Your task to perform on an android device: Open the map Image 0: 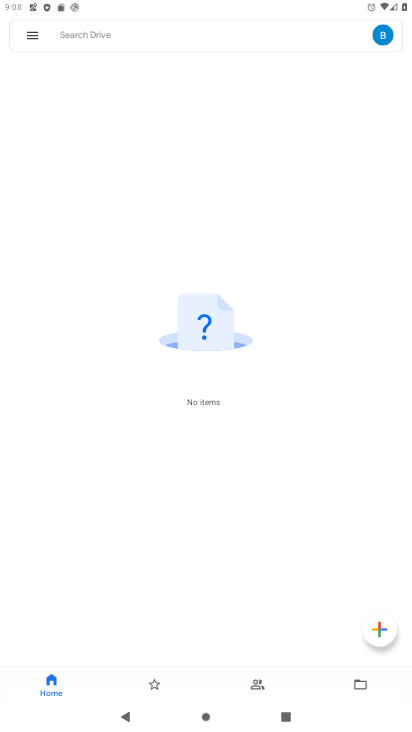
Step 0: press home button
Your task to perform on an android device: Open the map Image 1: 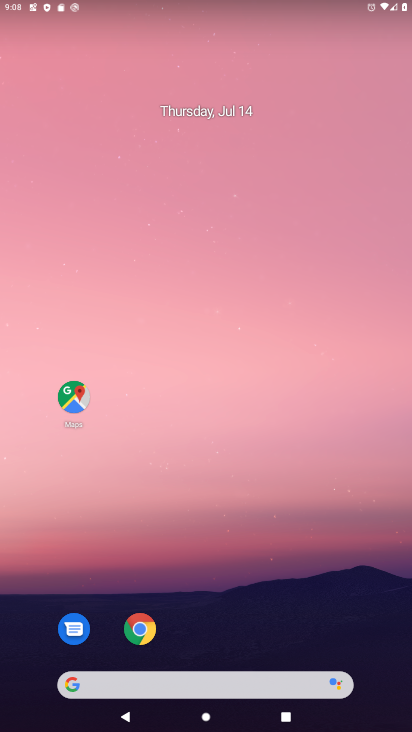
Step 1: click (83, 403)
Your task to perform on an android device: Open the map Image 2: 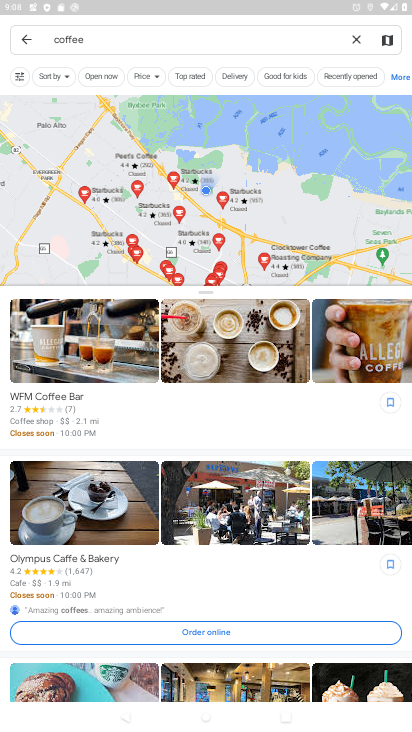
Step 2: task complete